Your task to perform on an android device: check battery use Image 0: 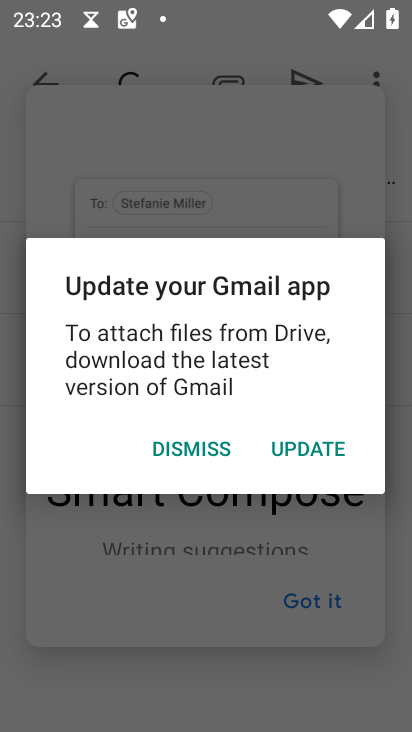
Step 0: press home button
Your task to perform on an android device: check battery use Image 1: 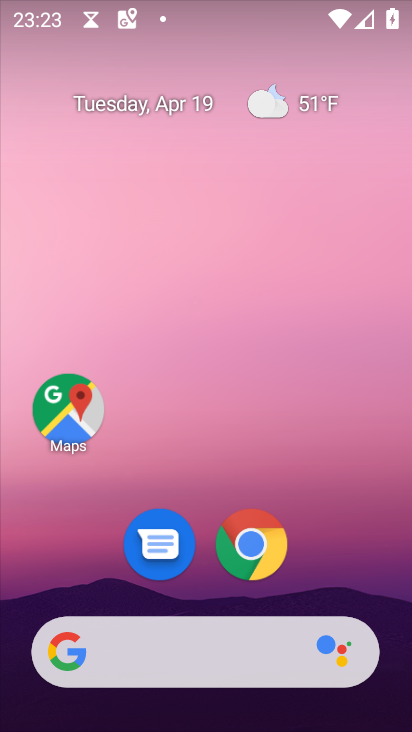
Step 1: drag from (339, 566) to (345, 65)
Your task to perform on an android device: check battery use Image 2: 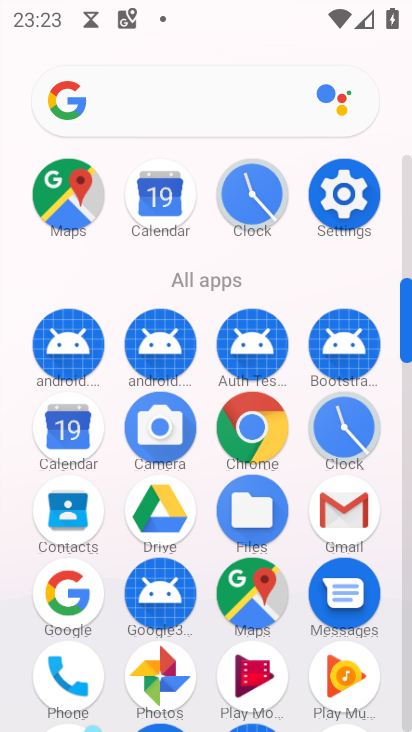
Step 2: click (326, 191)
Your task to perform on an android device: check battery use Image 3: 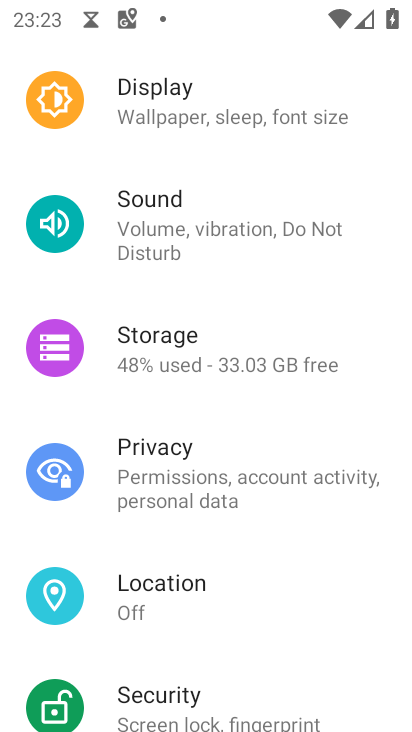
Step 3: drag from (163, 404) to (180, 477)
Your task to perform on an android device: check battery use Image 4: 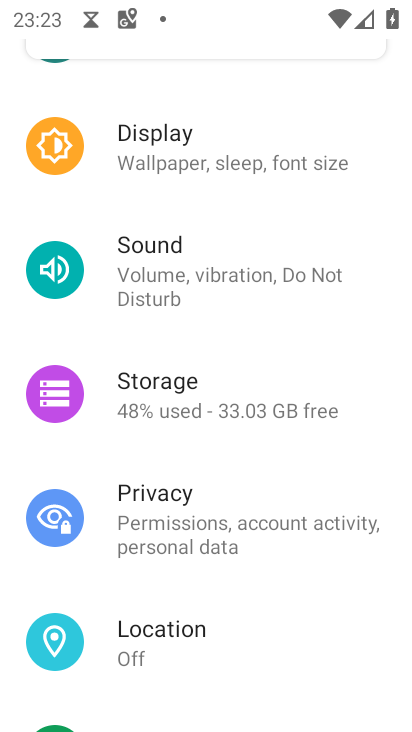
Step 4: drag from (154, 419) to (155, 478)
Your task to perform on an android device: check battery use Image 5: 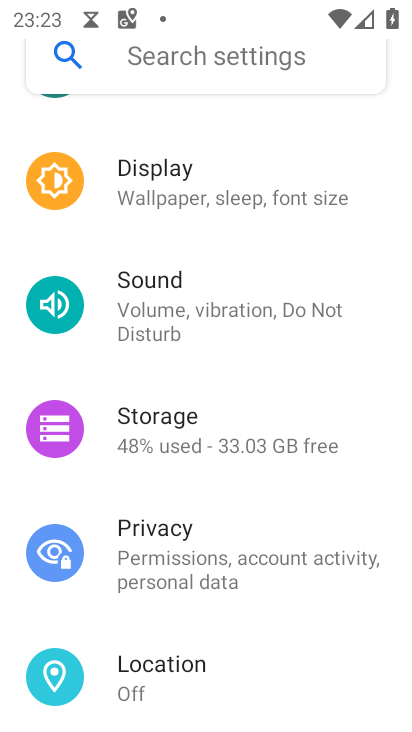
Step 5: drag from (183, 366) to (189, 440)
Your task to perform on an android device: check battery use Image 6: 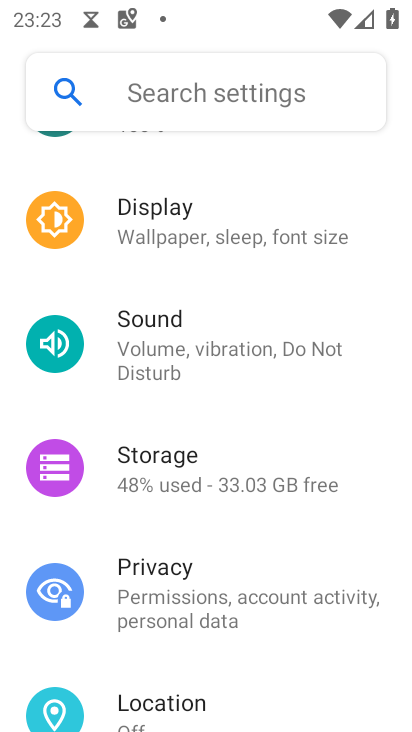
Step 6: drag from (206, 343) to (207, 408)
Your task to perform on an android device: check battery use Image 7: 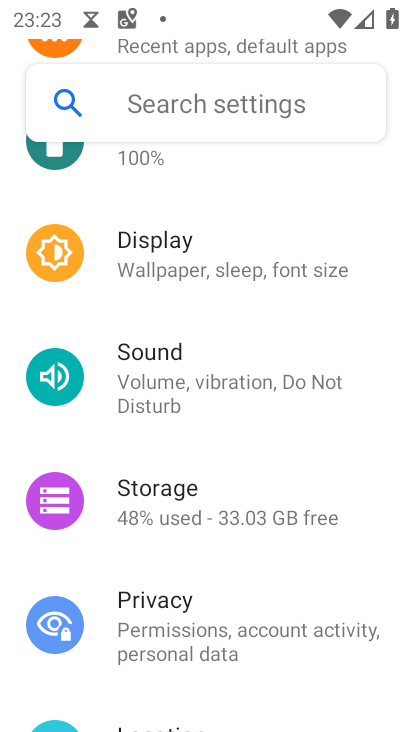
Step 7: drag from (201, 342) to (195, 403)
Your task to perform on an android device: check battery use Image 8: 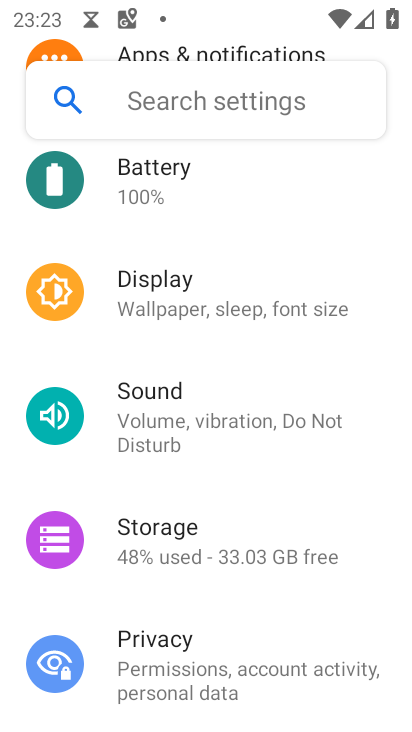
Step 8: click (186, 190)
Your task to perform on an android device: check battery use Image 9: 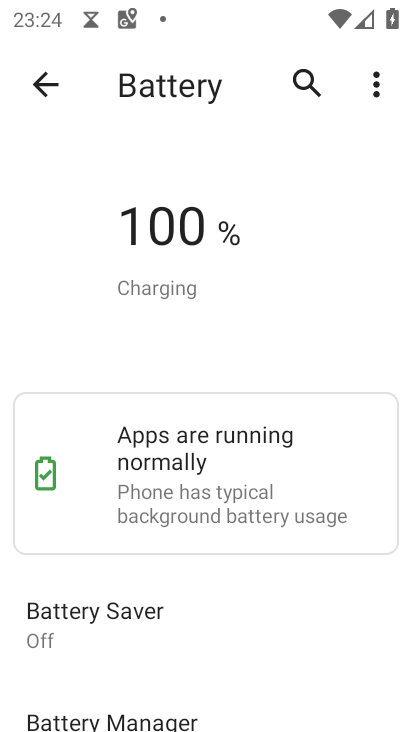
Step 9: click (373, 83)
Your task to perform on an android device: check battery use Image 10: 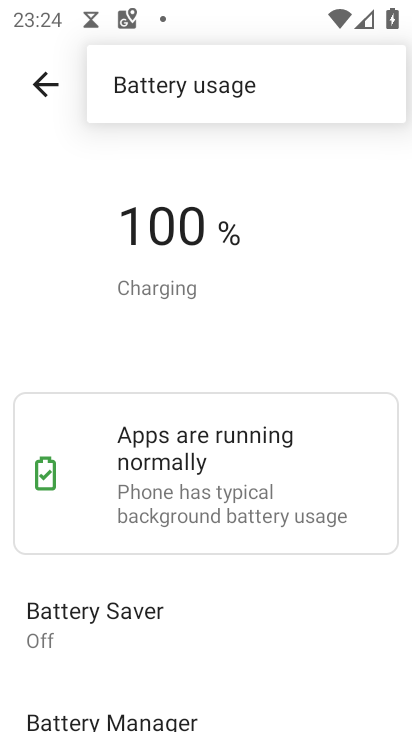
Step 10: click (317, 78)
Your task to perform on an android device: check battery use Image 11: 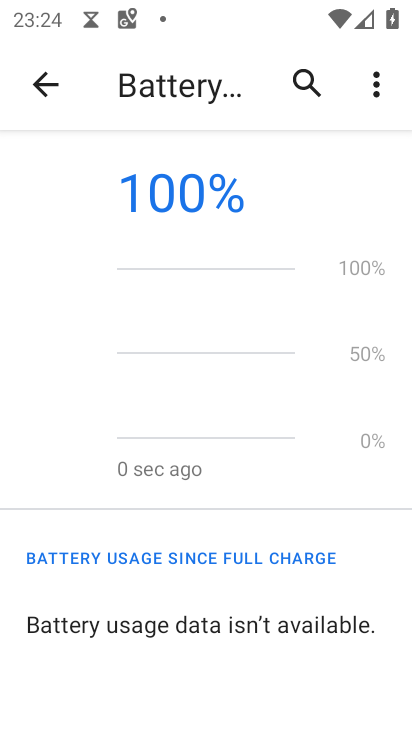
Step 11: task complete